Your task to perform on an android device: see sites visited before in the chrome app Image 0: 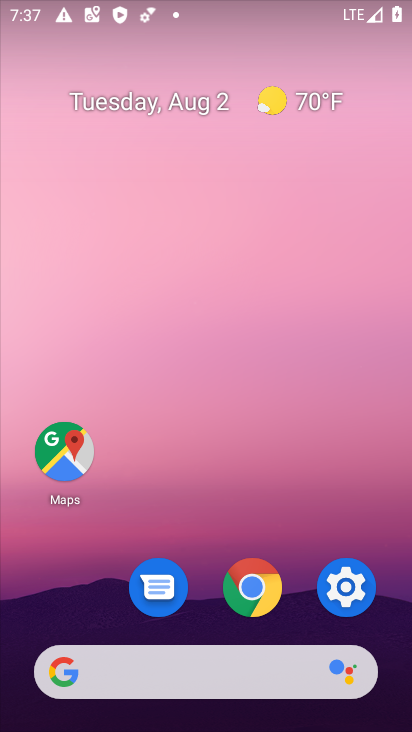
Step 0: click (261, 578)
Your task to perform on an android device: see sites visited before in the chrome app Image 1: 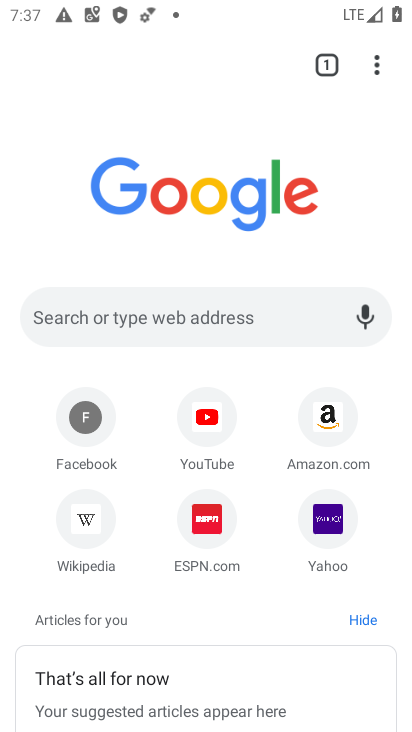
Step 1: click (377, 72)
Your task to perform on an android device: see sites visited before in the chrome app Image 2: 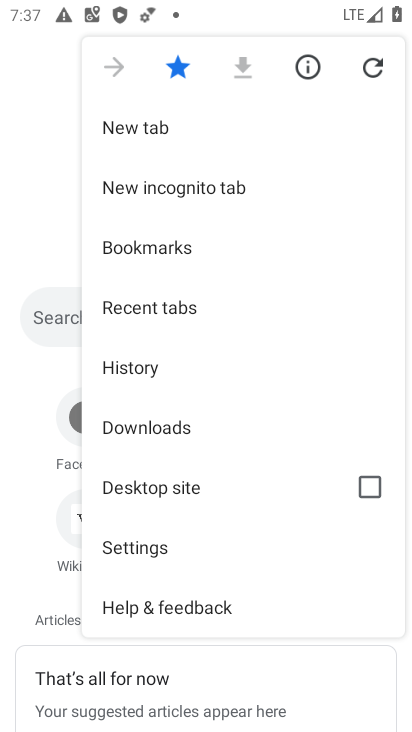
Step 2: click (162, 536)
Your task to perform on an android device: see sites visited before in the chrome app Image 3: 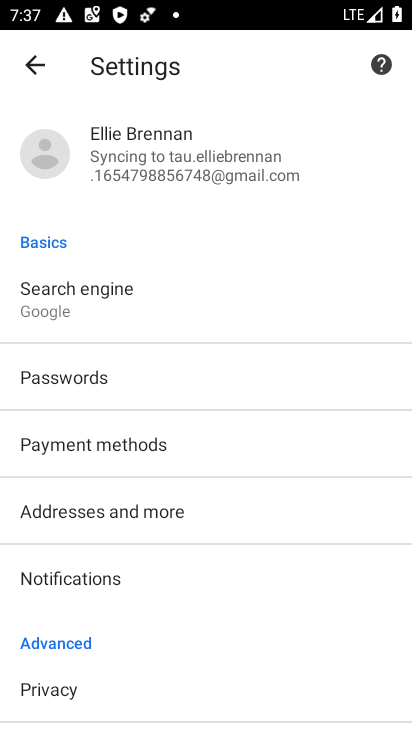
Step 3: drag from (116, 646) to (150, 438)
Your task to perform on an android device: see sites visited before in the chrome app Image 4: 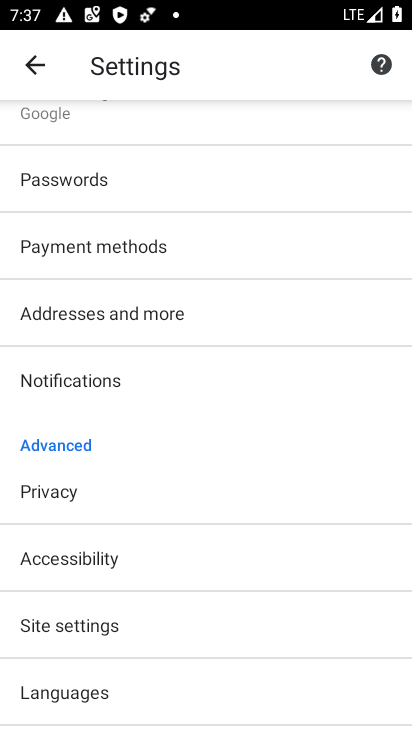
Step 4: click (88, 621)
Your task to perform on an android device: see sites visited before in the chrome app Image 5: 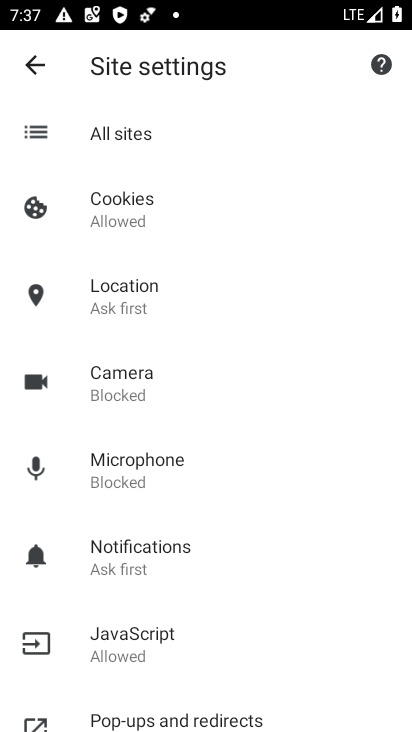
Step 5: click (142, 143)
Your task to perform on an android device: see sites visited before in the chrome app Image 6: 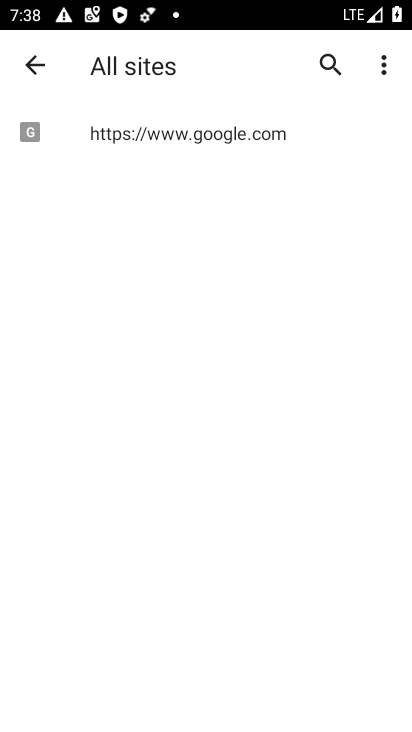
Step 6: click (243, 139)
Your task to perform on an android device: see sites visited before in the chrome app Image 7: 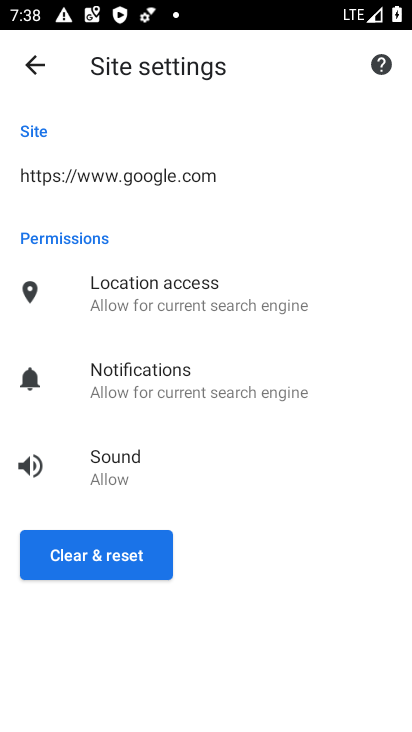
Step 7: task complete